Your task to perform on an android device: open a bookmark in the chrome app Image 0: 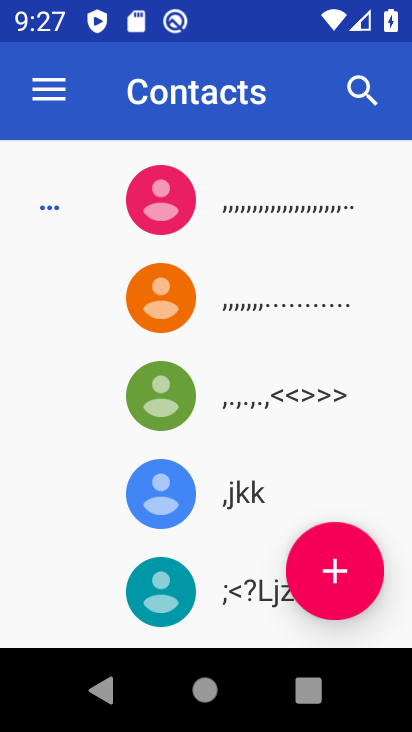
Step 0: task impossible